Your task to perform on an android device: visit the assistant section in the google photos Image 0: 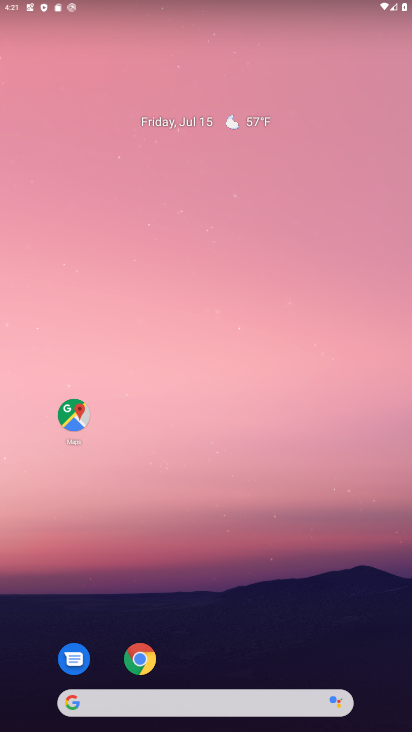
Step 0: drag from (307, 631) to (215, 223)
Your task to perform on an android device: visit the assistant section in the google photos Image 1: 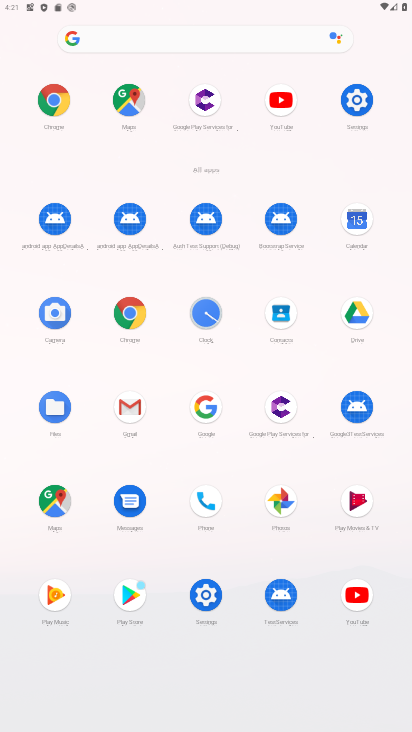
Step 1: click (285, 501)
Your task to perform on an android device: visit the assistant section in the google photos Image 2: 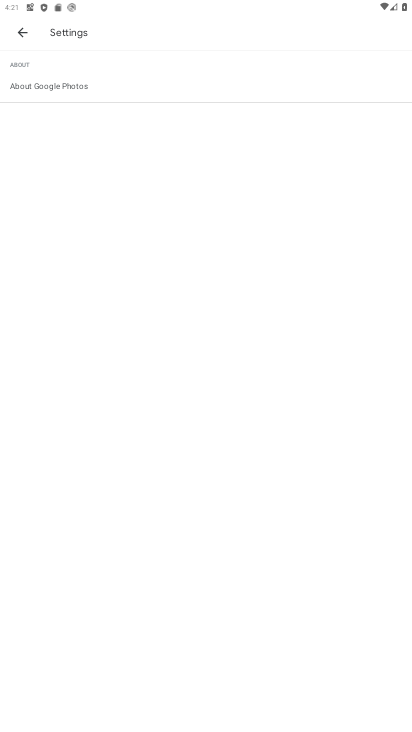
Step 2: click (16, 36)
Your task to perform on an android device: visit the assistant section in the google photos Image 3: 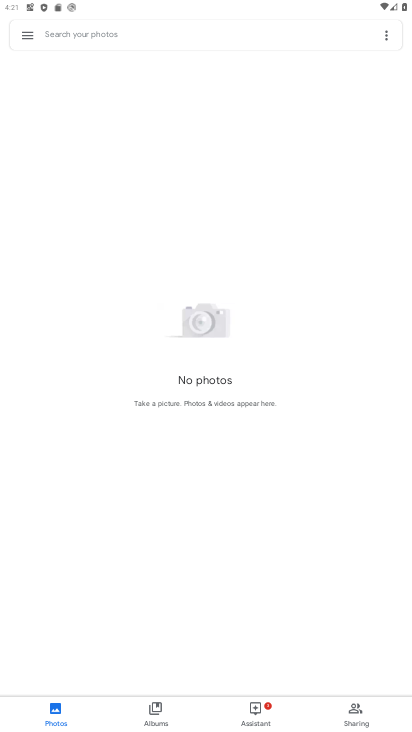
Step 3: click (272, 717)
Your task to perform on an android device: visit the assistant section in the google photos Image 4: 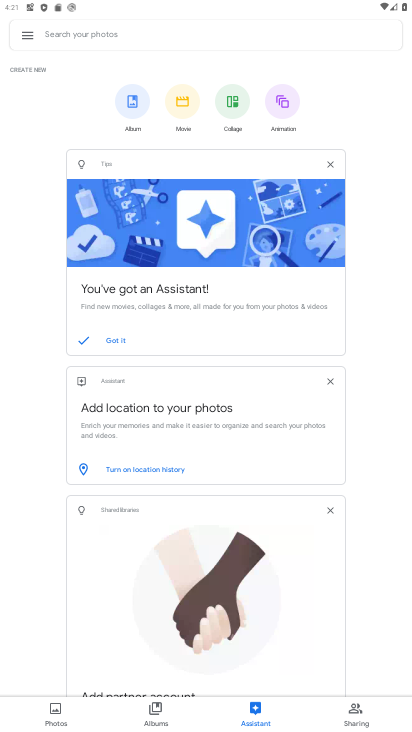
Step 4: task complete